Your task to perform on an android device: toggle airplane mode Image 0: 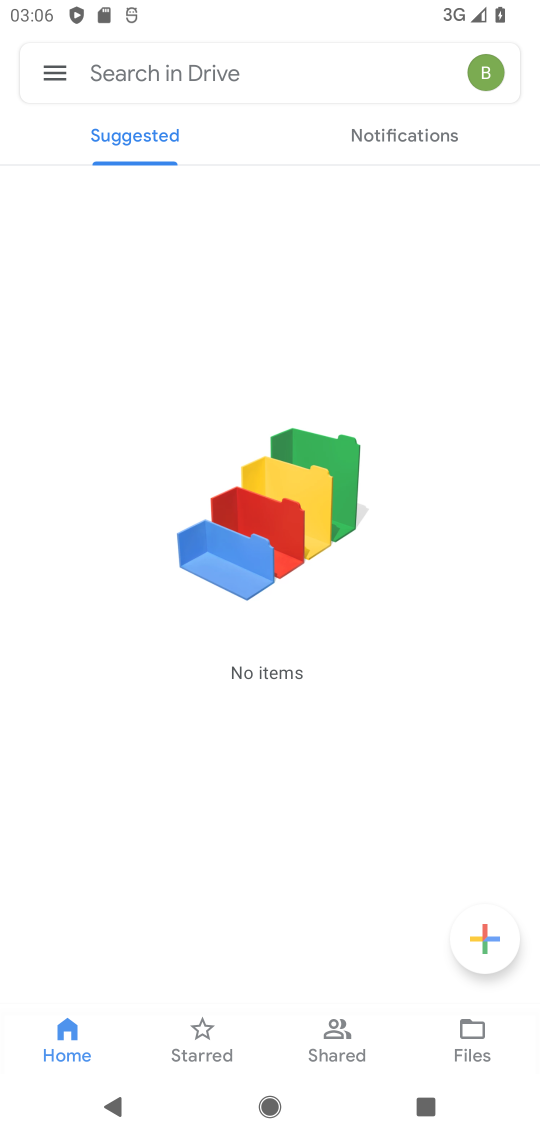
Step 0: press home button
Your task to perform on an android device: toggle airplane mode Image 1: 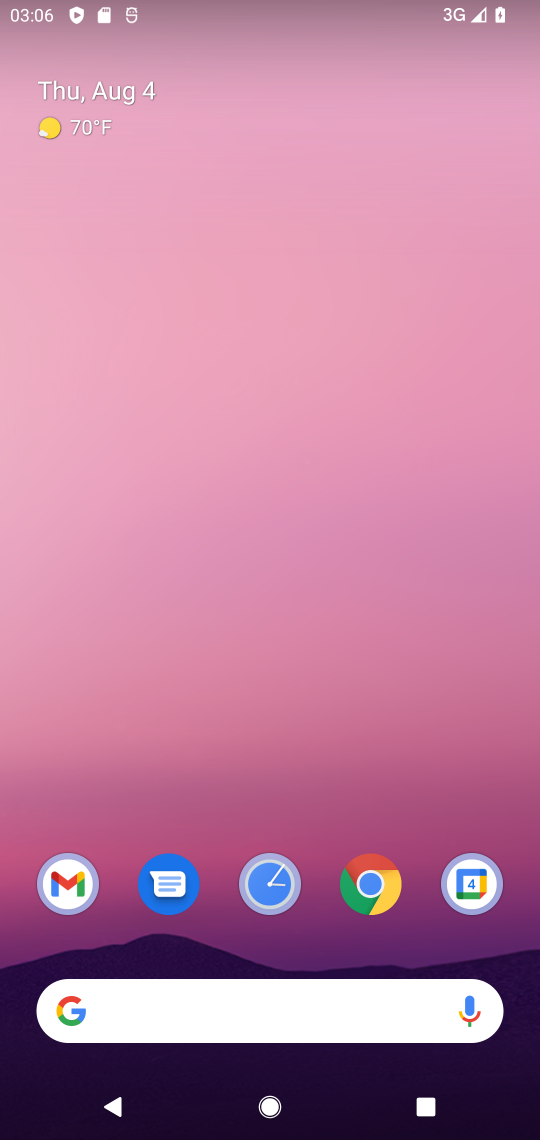
Step 1: drag from (314, 807) to (344, 203)
Your task to perform on an android device: toggle airplane mode Image 2: 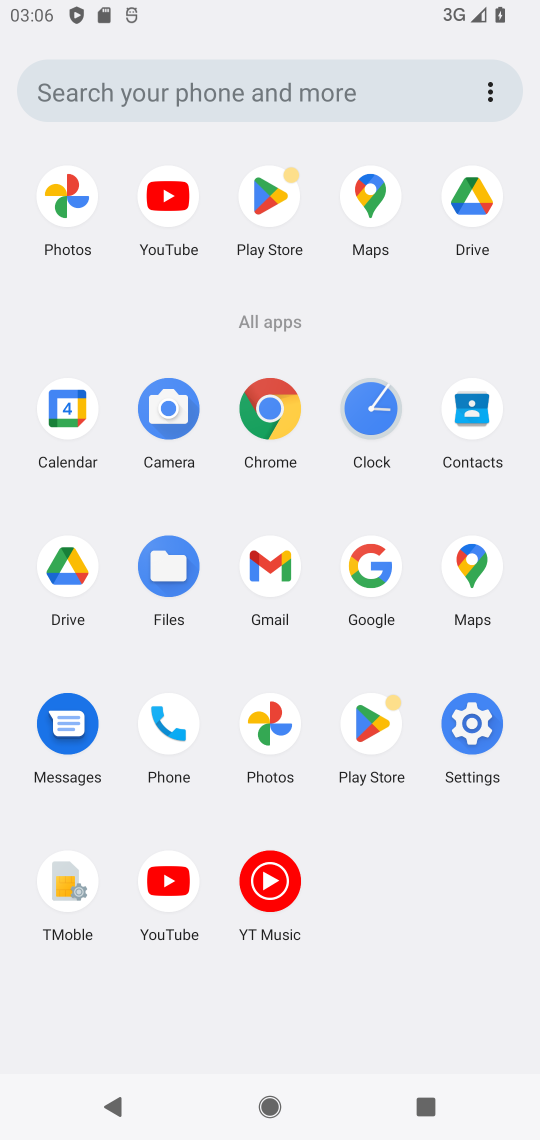
Step 2: click (481, 738)
Your task to perform on an android device: toggle airplane mode Image 3: 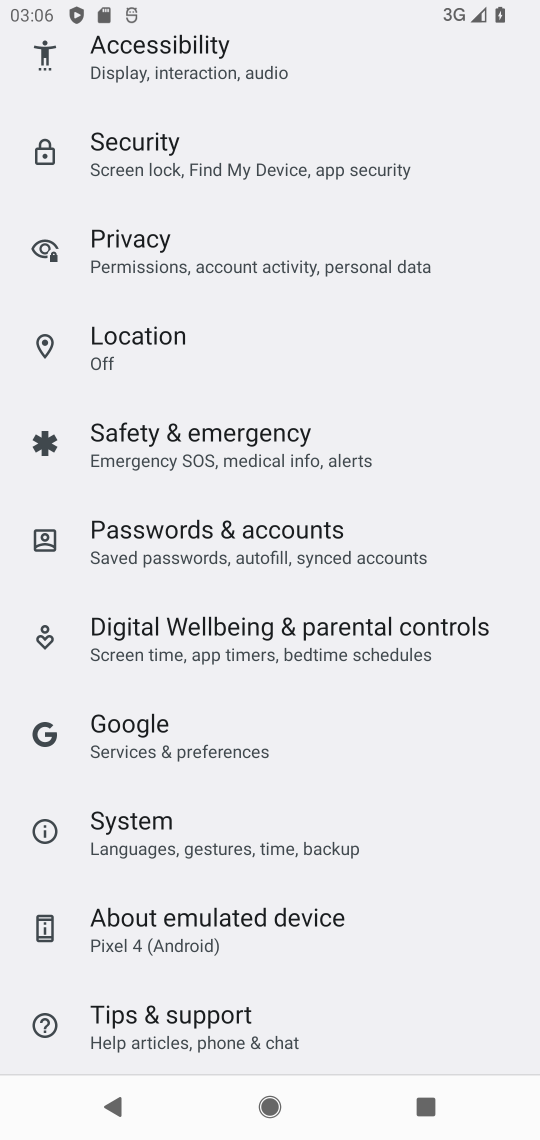
Step 3: drag from (471, 392) to (471, 649)
Your task to perform on an android device: toggle airplane mode Image 4: 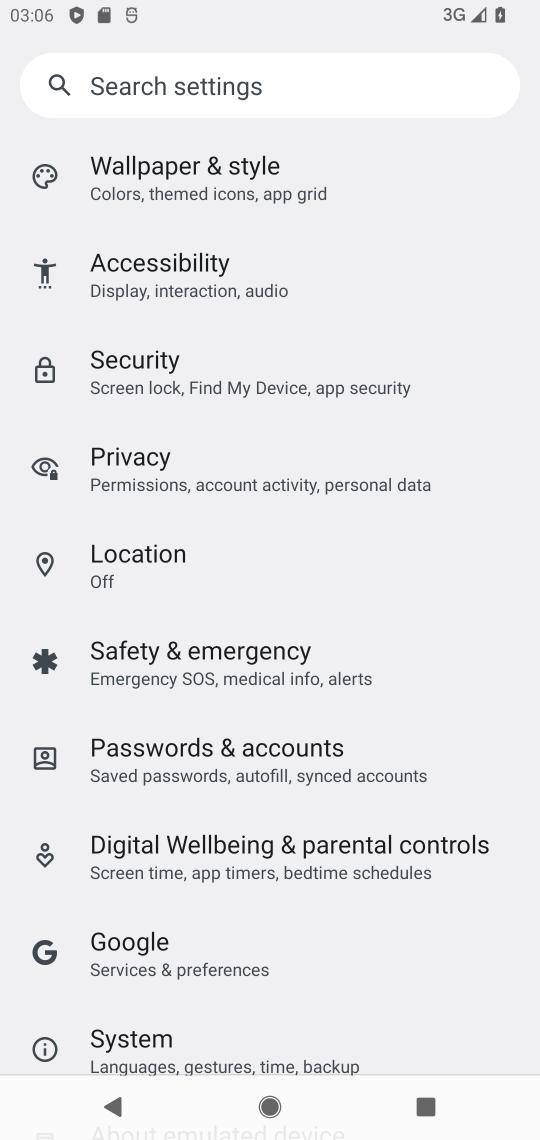
Step 4: drag from (474, 378) to (476, 520)
Your task to perform on an android device: toggle airplane mode Image 5: 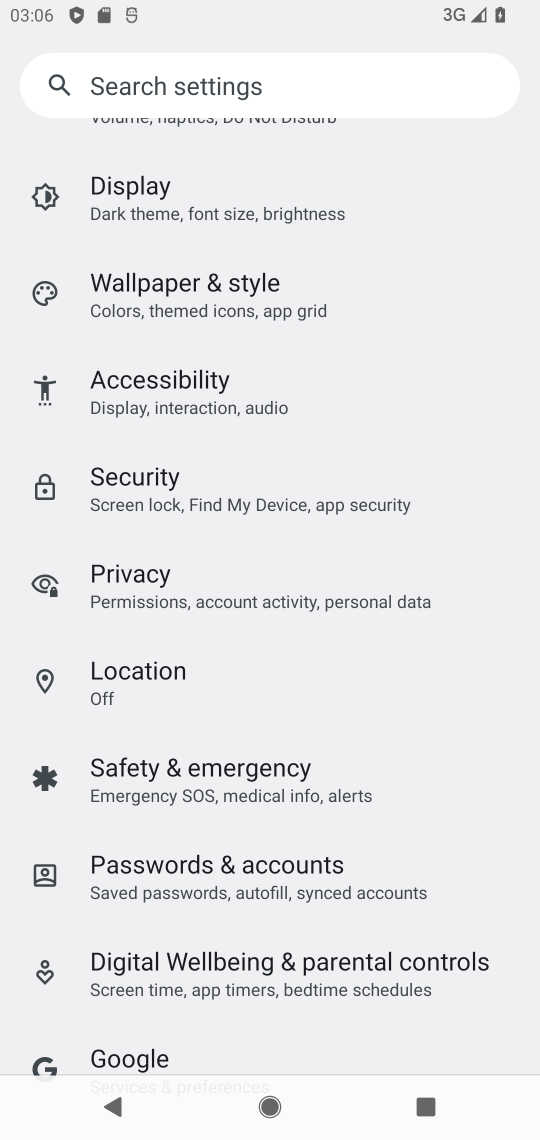
Step 5: drag from (465, 348) to (468, 545)
Your task to perform on an android device: toggle airplane mode Image 6: 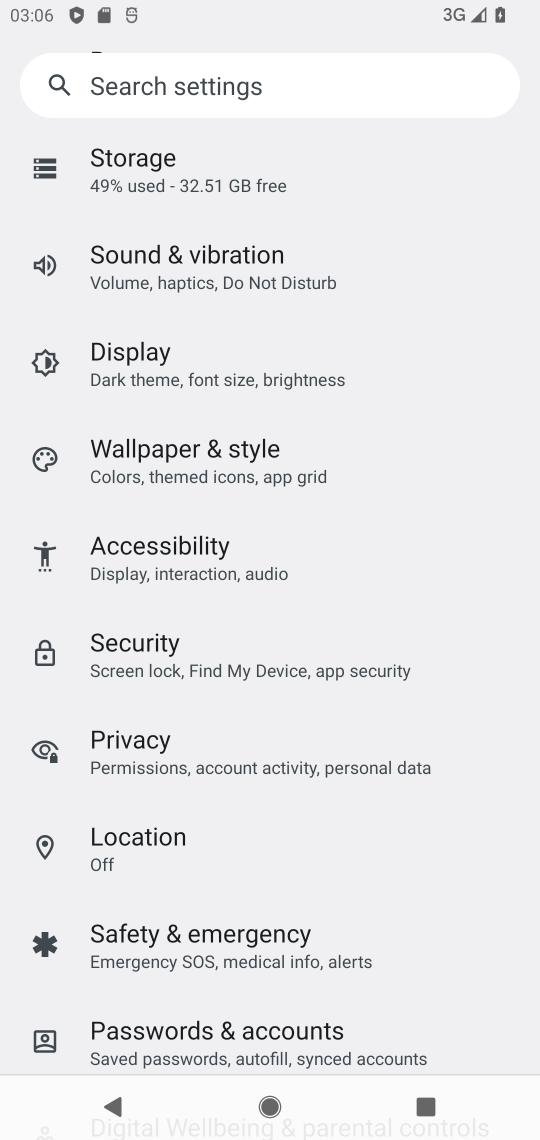
Step 6: drag from (471, 288) to (470, 557)
Your task to perform on an android device: toggle airplane mode Image 7: 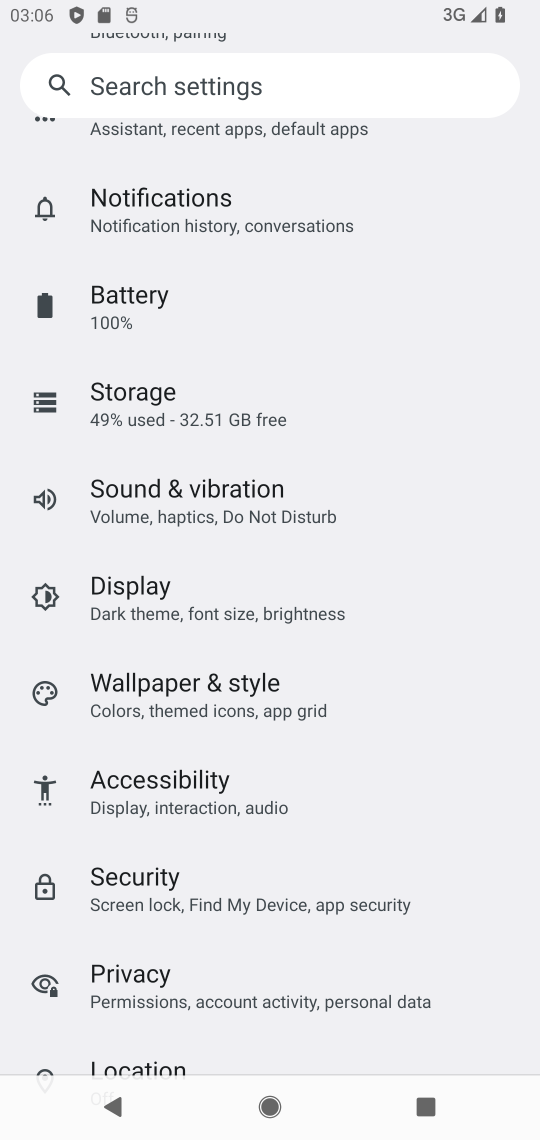
Step 7: drag from (482, 258) to (449, 505)
Your task to perform on an android device: toggle airplane mode Image 8: 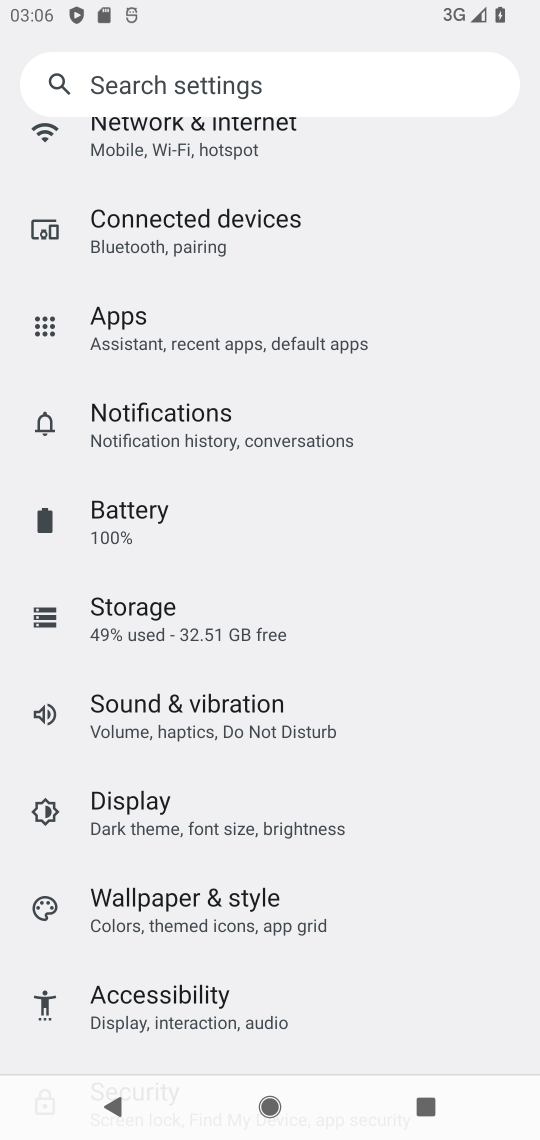
Step 8: drag from (446, 223) to (446, 524)
Your task to perform on an android device: toggle airplane mode Image 9: 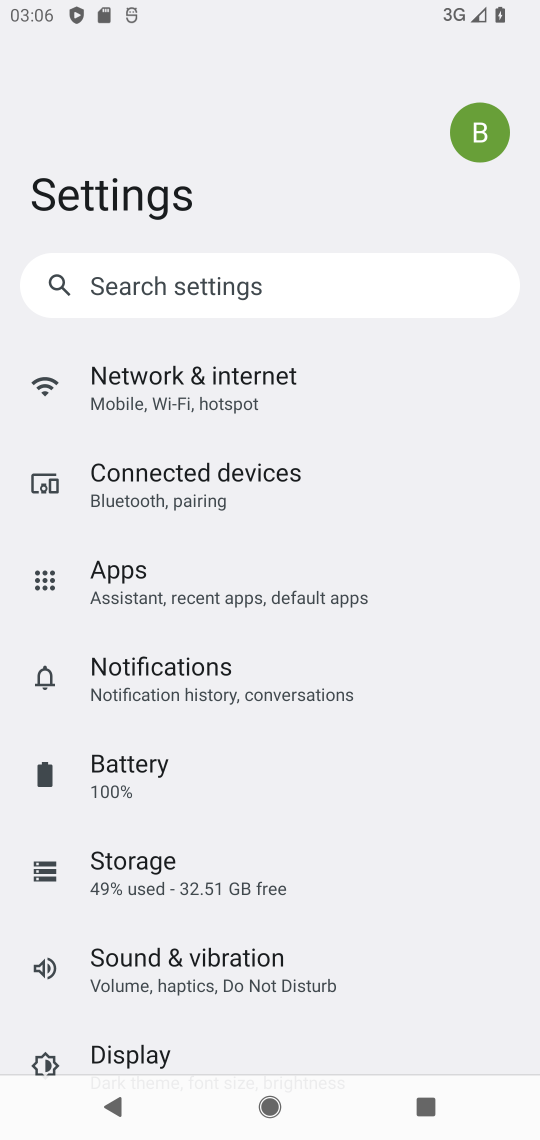
Step 9: click (328, 389)
Your task to perform on an android device: toggle airplane mode Image 10: 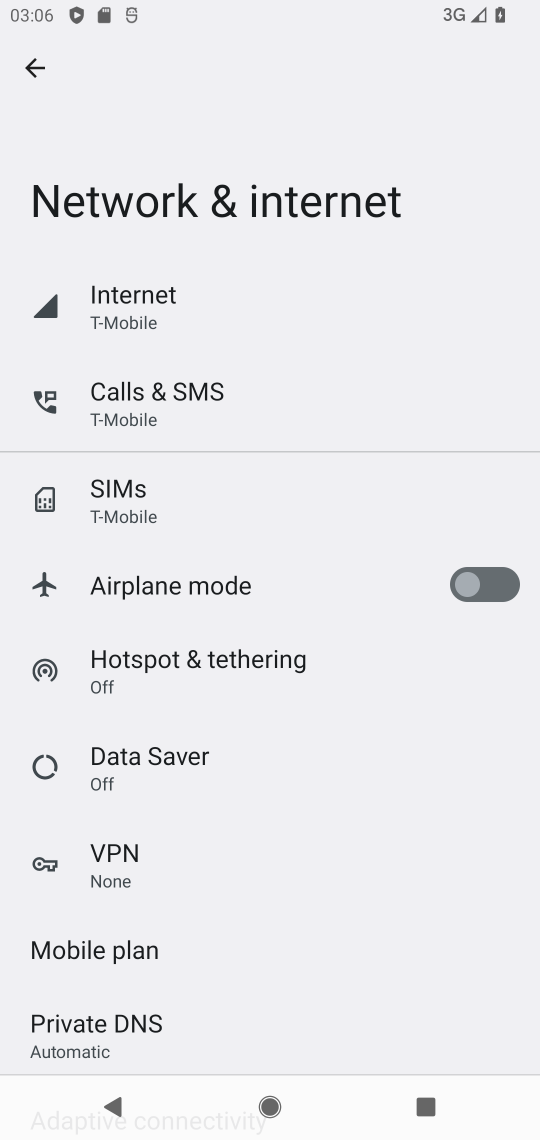
Step 10: drag from (361, 690) to (393, 473)
Your task to perform on an android device: toggle airplane mode Image 11: 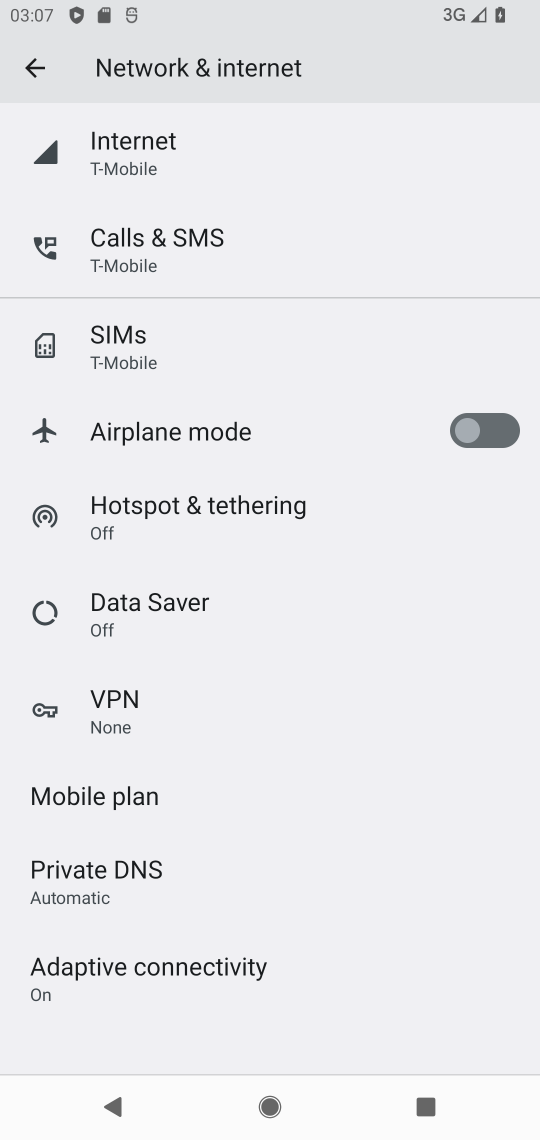
Step 11: drag from (392, 610) to (406, 378)
Your task to perform on an android device: toggle airplane mode Image 12: 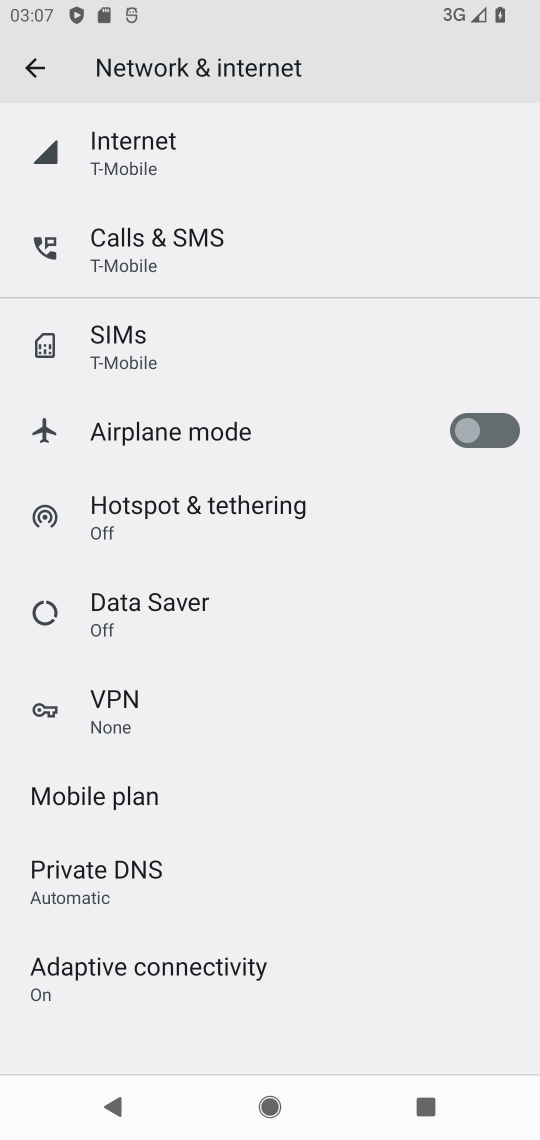
Step 12: click (484, 424)
Your task to perform on an android device: toggle airplane mode Image 13: 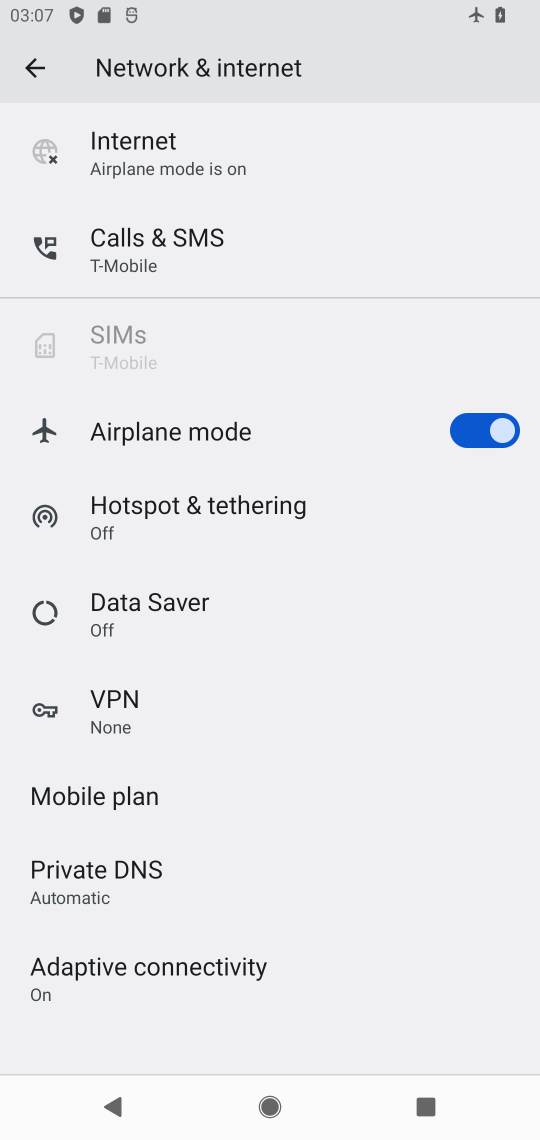
Step 13: task complete